Your task to perform on an android device: Go to accessibility settings Image 0: 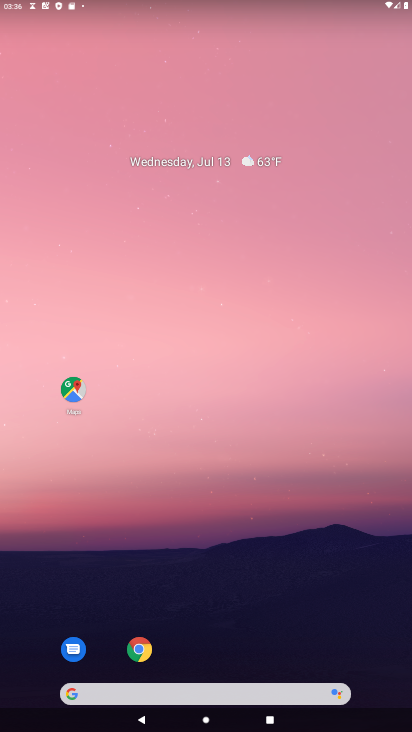
Step 0: drag from (316, 641) to (329, 10)
Your task to perform on an android device: Go to accessibility settings Image 1: 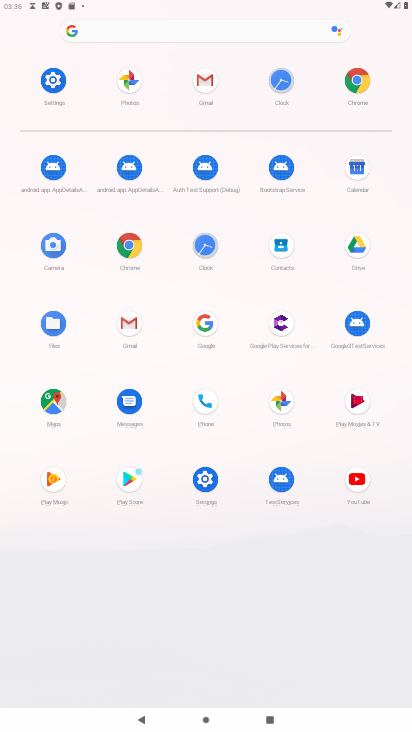
Step 1: click (47, 85)
Your task to perform on an android device: Go to accessibility settings Image 2: 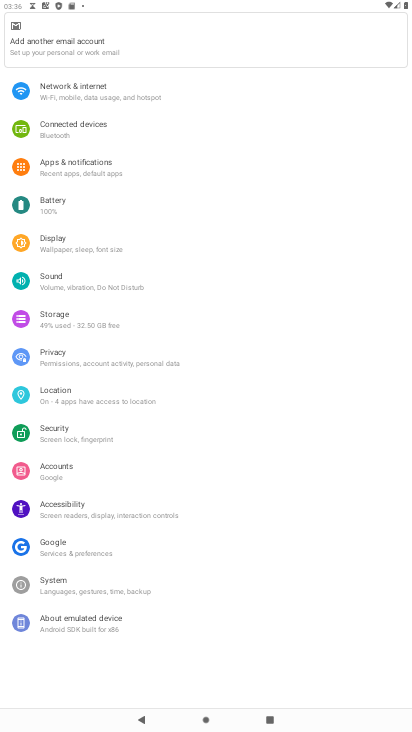
Step 2: click (81, 510)
Your task to perform on an android device: Go to accessibility settings Image 3: 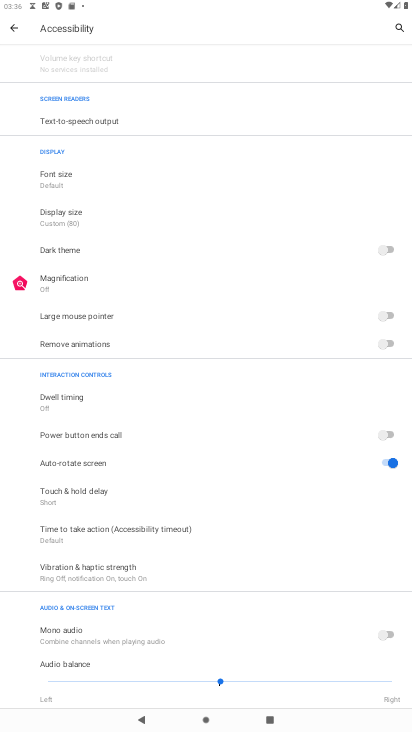
Step 3: task complete